Your task to perform on an android device: find snoozed emails in the gmail app Image 0: 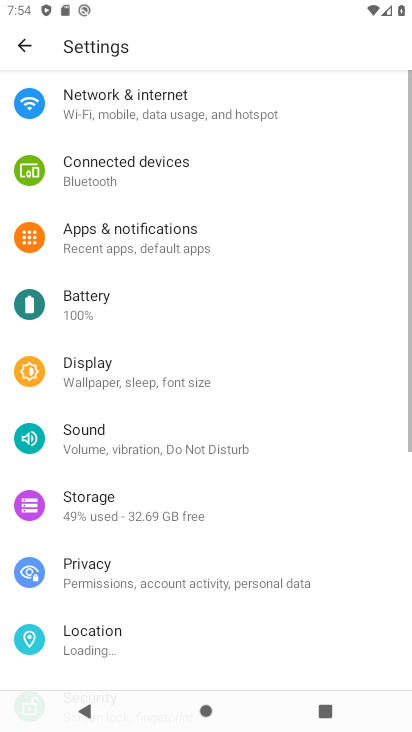
Step 0: drag from (291, 671) to (190, 89)
Your task to perform on an android device: find snoozed emails in the gmail app Image 1: 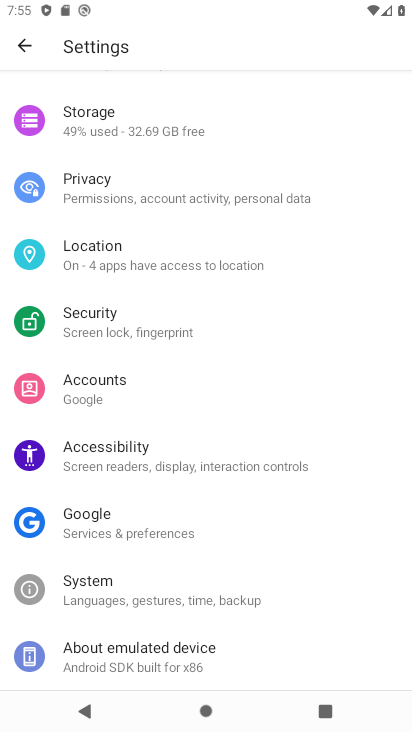
Step 1: press back button
Your task to perform on an android device: find snoozed emails in the gmail app Image 2: 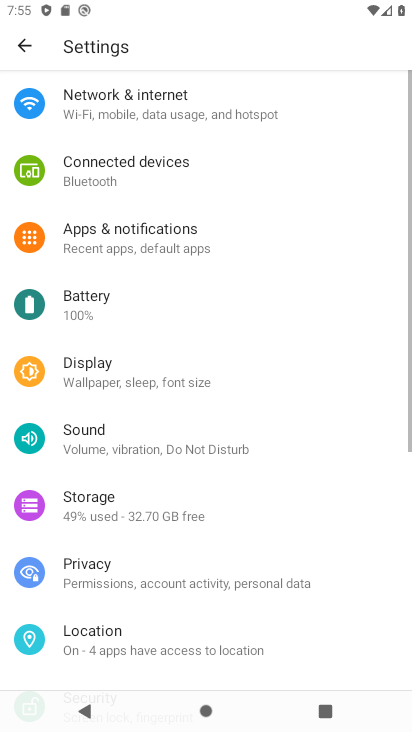
Step 2: click (17, 53)
Your task to perform on an android device: find snoozed emails in the gmail app Image 3: 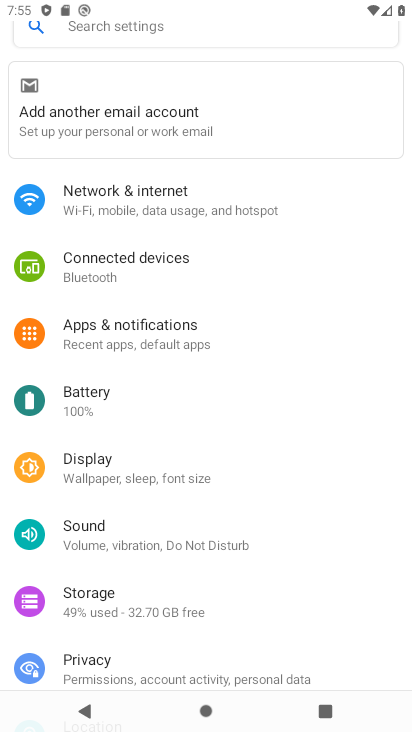
Step 3: press home button
Your task to perform on an android device: find snoozed emails in the gmail app Image 4: 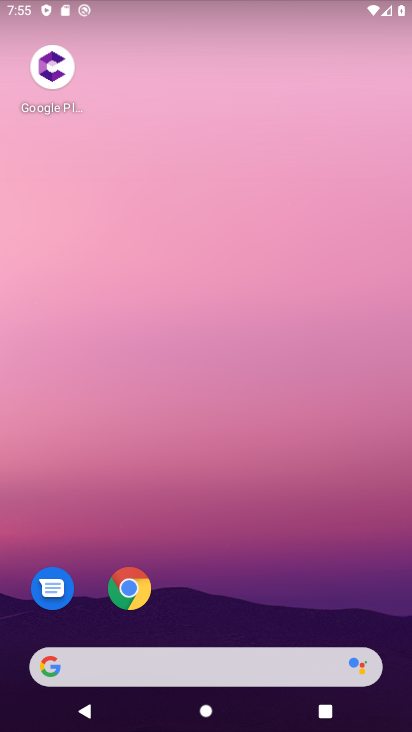
Step 4: drag from (277, 623) to (116, 93)
Your task to perform on an android device: find snoozed emails in the gmail app Image 5: 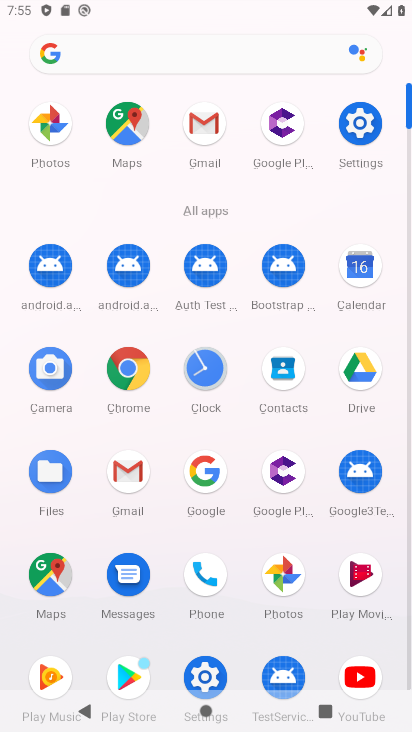
Step 5: click (119, 482)
Your task to perform on an android device: find snoozed emails in the gmail app Image 6: 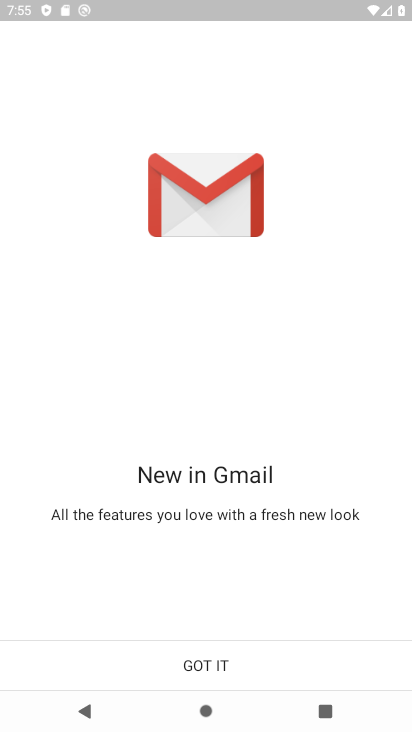
Step 6: click (214, 653)
Your task to perform on an android device: find snoozed emails in the gmail app Image 7: 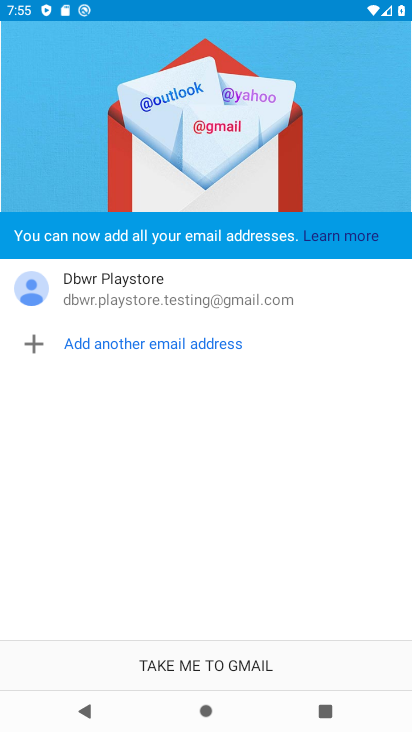
Step 7: click (213, 686)
Your task to perform on an android device: find snoozed emails in the gmail app Image 8: 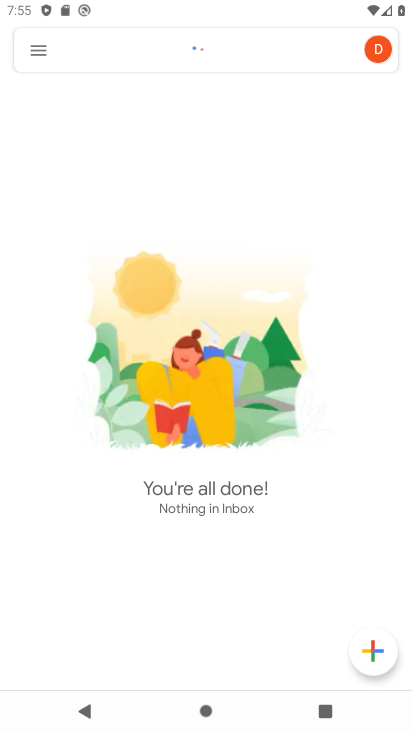
Step 8: click (37, 47)
Your task to perform on an android device: find snoozed emails in the gmail app Image 9: 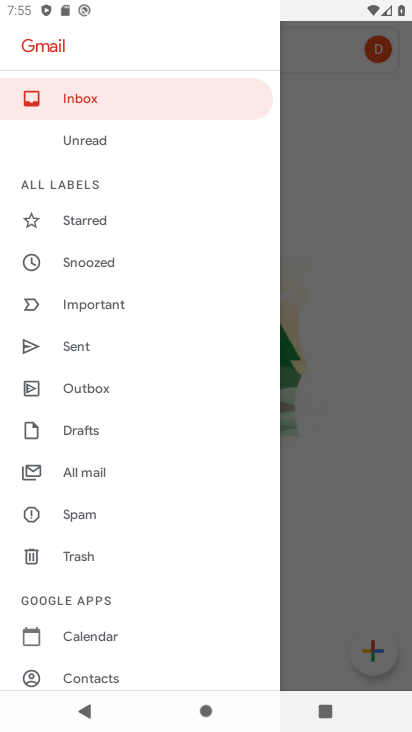
Step 9: click (95, 260)
Your task to perform on an android device: find snoozed emails in the gmail app Image 10: 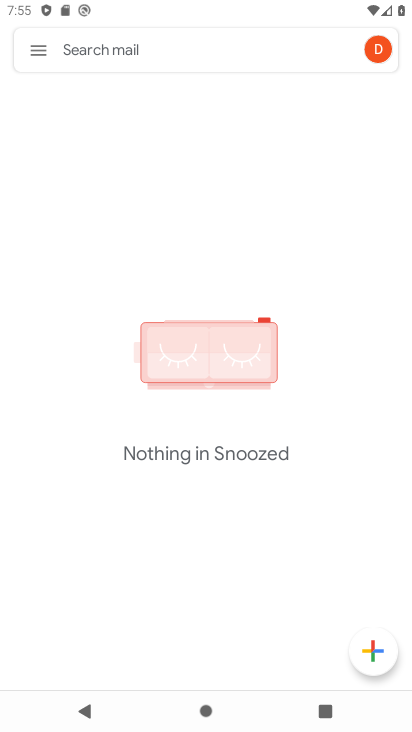
Step 10: task complete